Your task to perform on an android device: open chrome privacy settings Image 0: 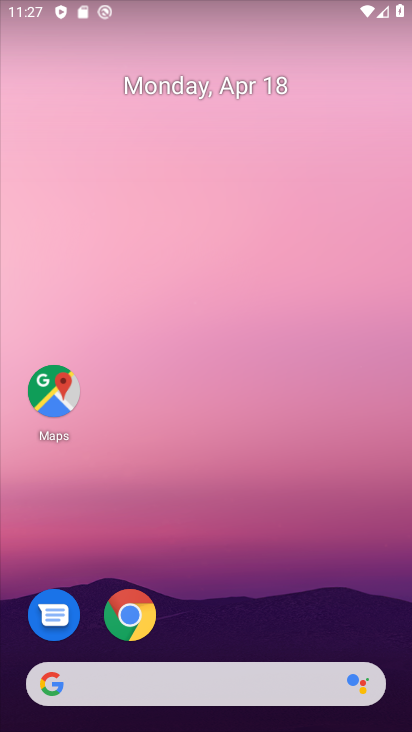
Step 0: click (128, 616)
Your task to perform on an android device: open chrome privacy settings Image 1: 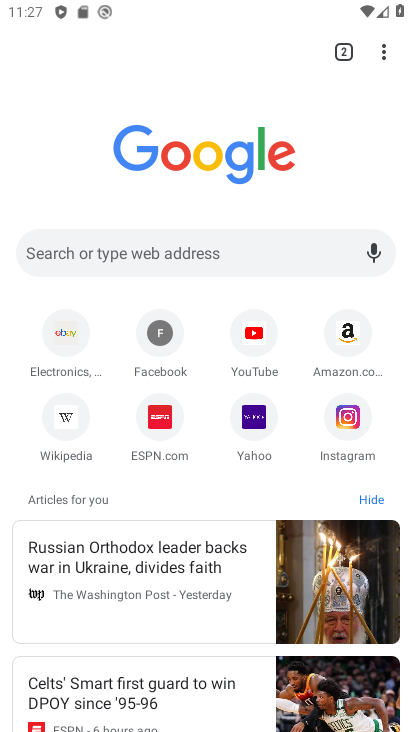
Step 1: click (382, 49)
Your task to perform on an android device: open chrome privacy settings Image 2: 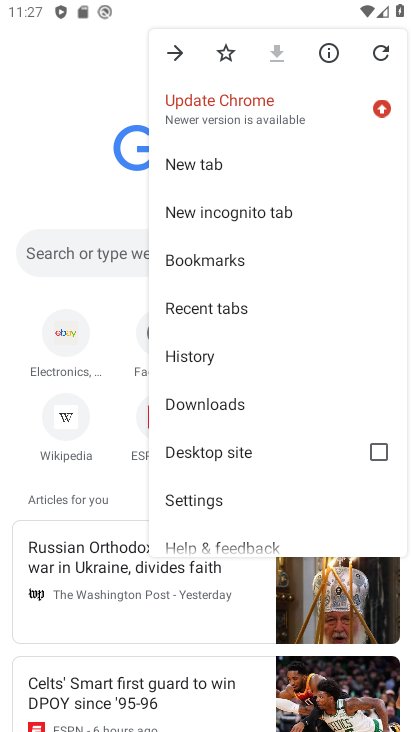
Step 2: click (198, 496)
Your task to perform on an android device: open chrome privacy settings Image 3: 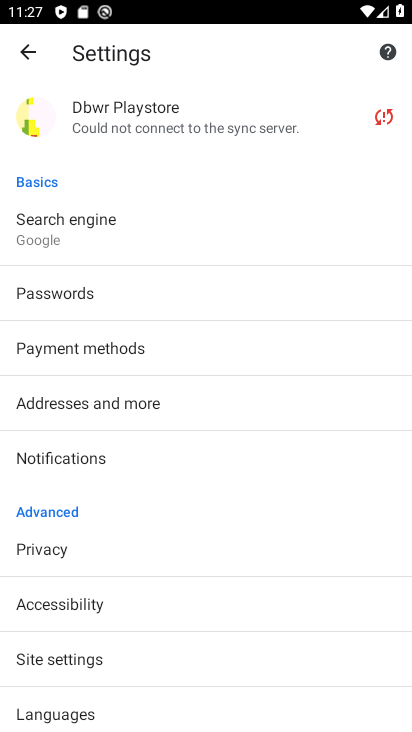
Step 3: click (42, 550)
Your task to perform on an android device: open chrome privacy settings Image 4: 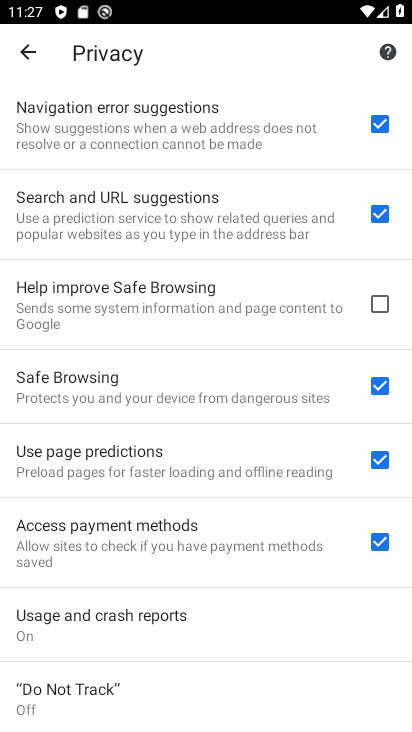
Step 4: task complete